Your task to perform on an android device: Search for seafood restaurants on Google Maps Image 0: 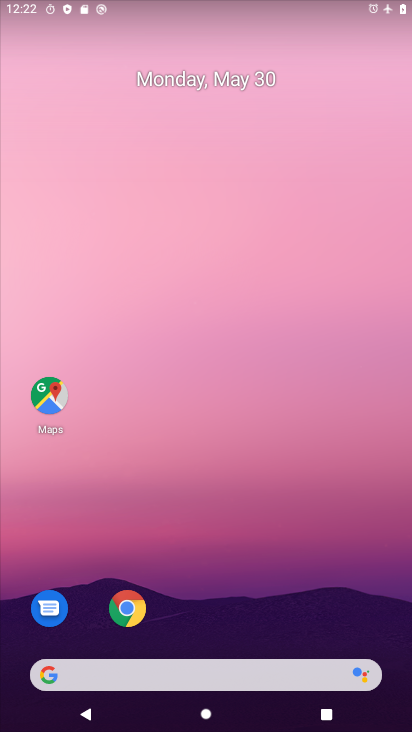
Step 0: click (43, 398)
Your task to perform on an android device: Search for seafood restaurants on Google Maps Image 1: 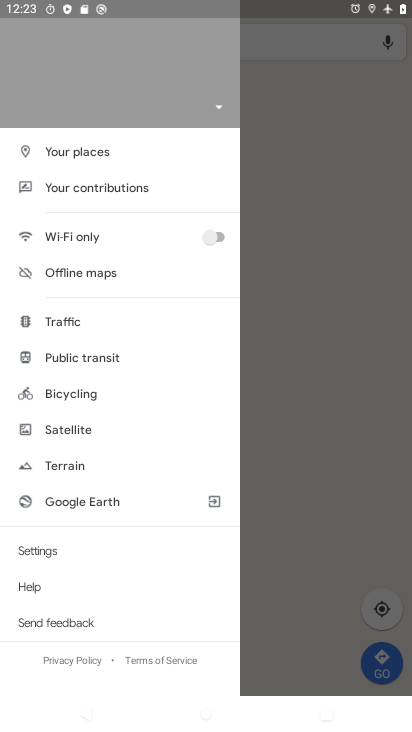
Step 1: click (291, 145)
Your task to perform on an android device: Search for seafood restaurants on Google Maps Image 2: 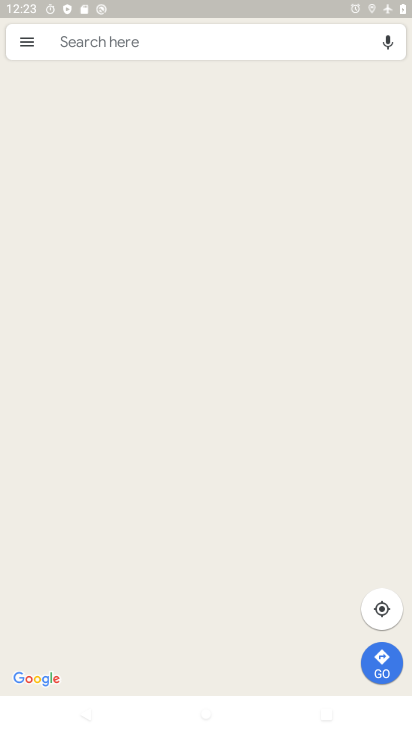
Step 2: click (99, 51)
Your task to perform on an android device: Search for seafood restaurants on Google Maps Image 3: 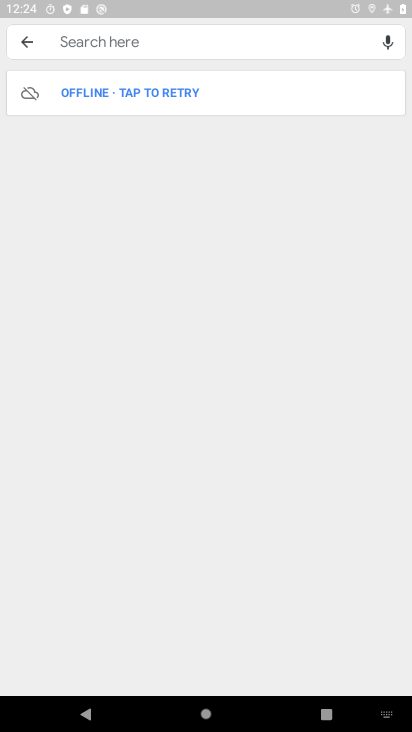
Step 3: task complete